Your task to perform on an android device: Open Wikipedia Image 0: 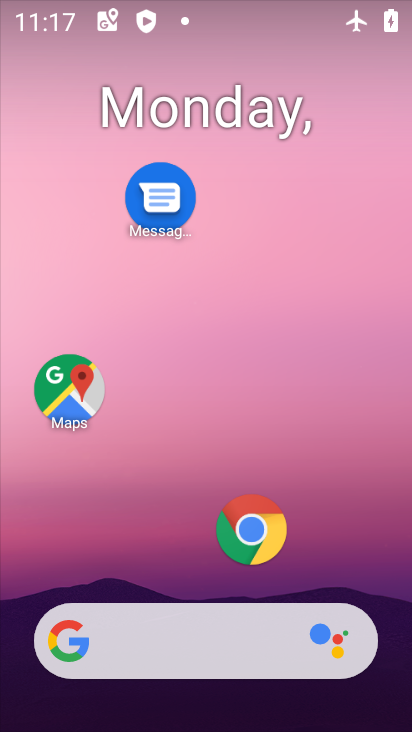
Step 0: drag from (88, 550) to (304, 168)
Your task to perform on an android device: Open Wikipedia Image 1: 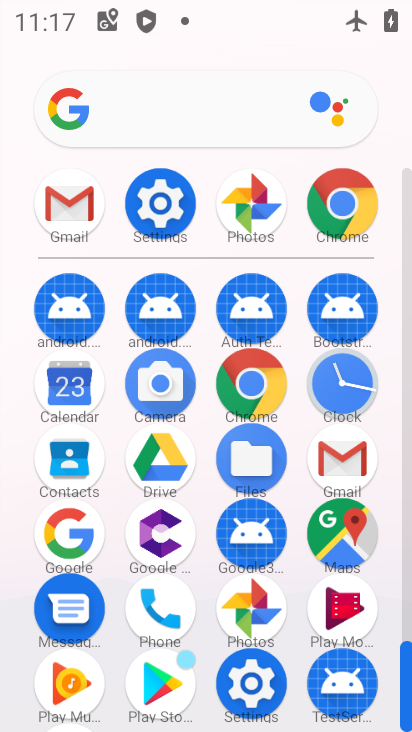
Step 1: click (256, 385)
Your task to perform on an android device: Open Wikipedia Image 2: 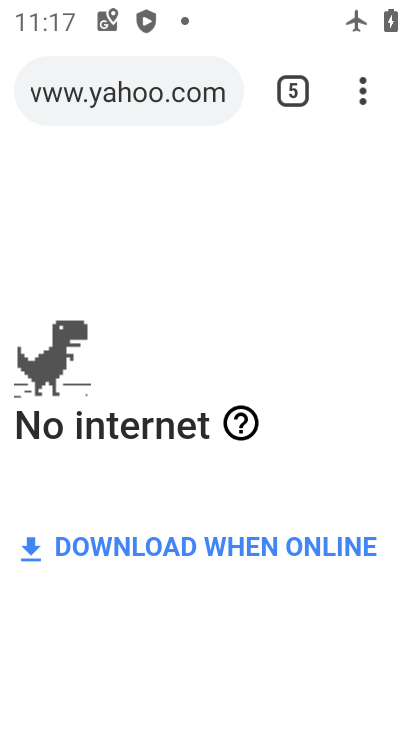
Step 2: click (312, 95)
Your task to perform on an android device: Open Wikipedia Image 3: 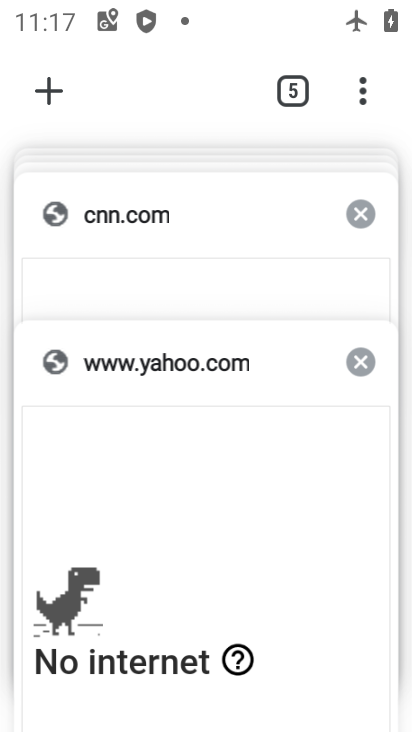
Step 3: click (44, 101)
Your task to perform on an android device: Open Wikipedia Image 4: 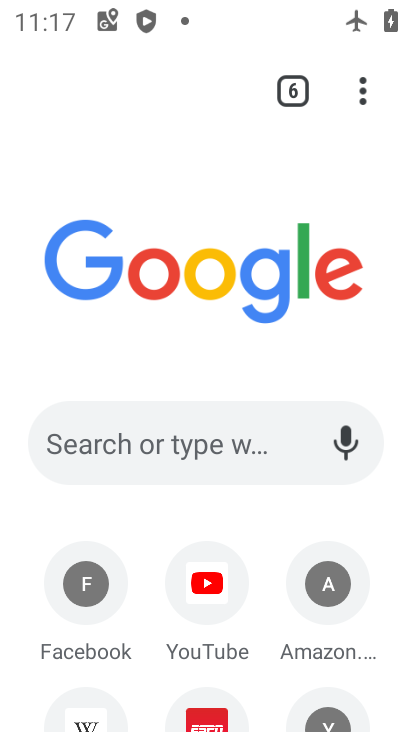
Step 4: drag from (153, 546) to (202, 189)
Your task to perform on an android device: Open Wikipedia Image 5: 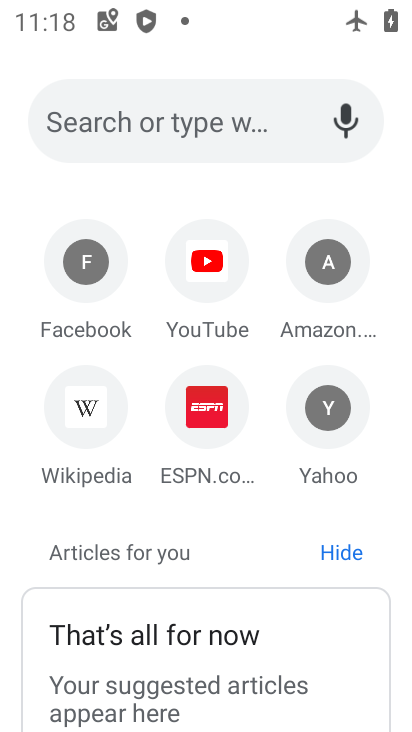
Step 5: click (86, 422)
Your task to perform on an android device: Open Wikipedia Image 6: 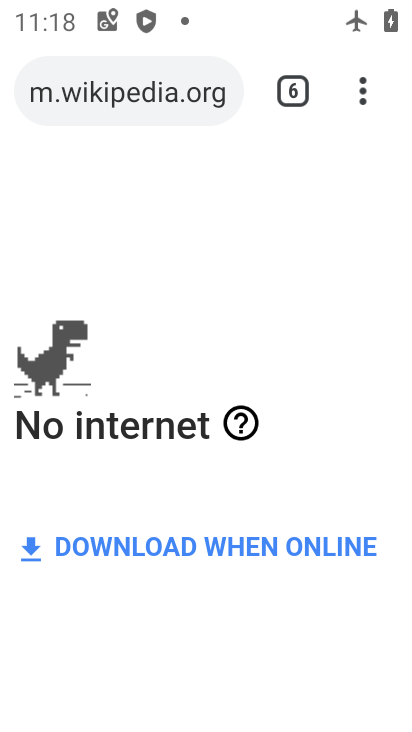
Step 6: task complete